Your task to perform on an android device: View the shopping cart on ebay.com. Search for bose soundsport free on ebay.com, select the first entry, add it to the cart, then select checkout. Image 0: 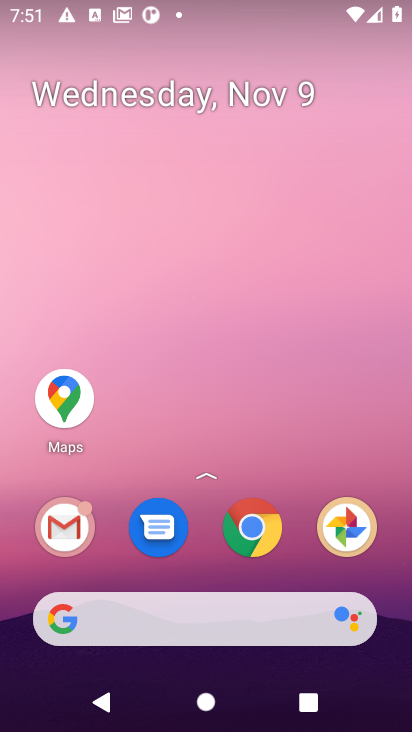
Step 0: click (248, 527)
Your task to perform on an android device: View the shopping cart on ebay.com. Search for bose soundsport free on ebay.com, select the first entry, add it to the cart, then select checkout. Image 1: 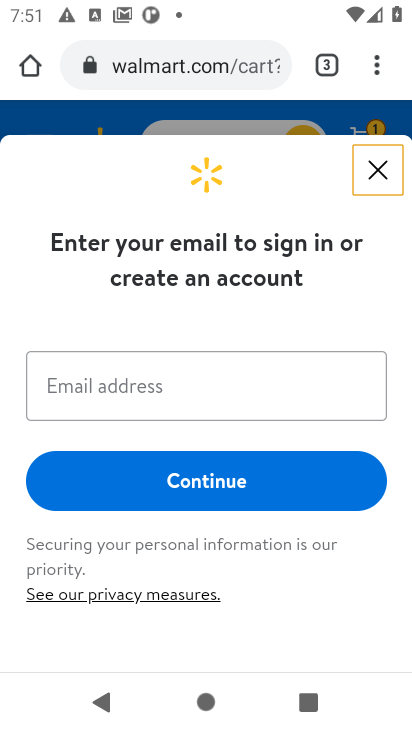
Step 1: click (177, 72)
Your task to perform on an android device: View the shopping cart on ebay.com. Search for bose soundsport free on ebay.com, select the first entry, add it to the cart, then select checkout. Image 2: 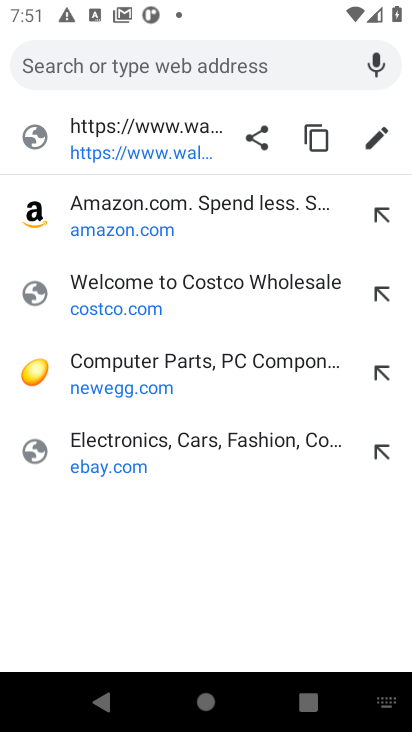
Step 2: click (95, 453)
Your task to perform on an android device: View the shopping cart on ebay.com. Search for bose soundsport free on ebay.com, select the first entry, add it to the cart, then select checkout. Image 3: 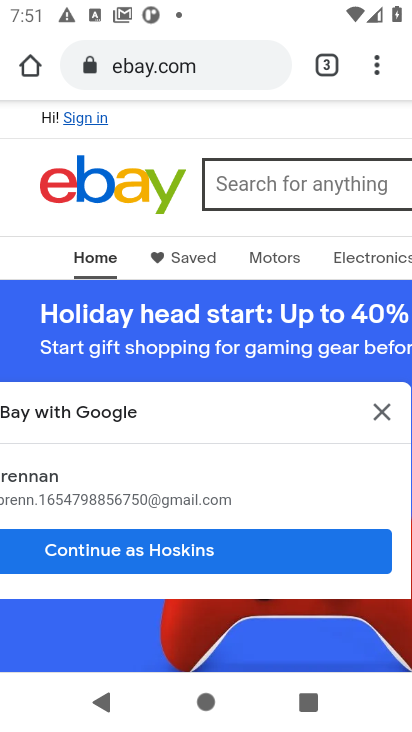
Step 3: drag from (304, 224) to (11, 163)
Your task to perform on an android device: View the shopping cart on ebay.com. Search for bose soundsport free on ebay.com, select the first entry, add it to the cart, then select checkout. Image 4: 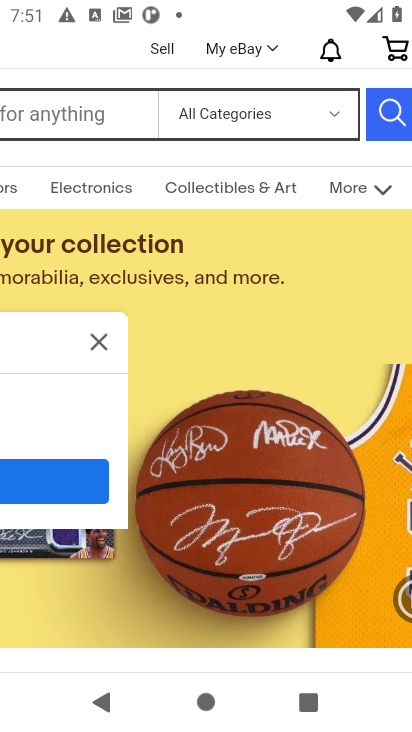
Step 4: click (393, 56)
Your task to perform on an android device: View the shopping cart on ebay.com. Search for bose soundsport free on ebay.com, select the first entry, add it to the cart, then select checkout. Image 5: 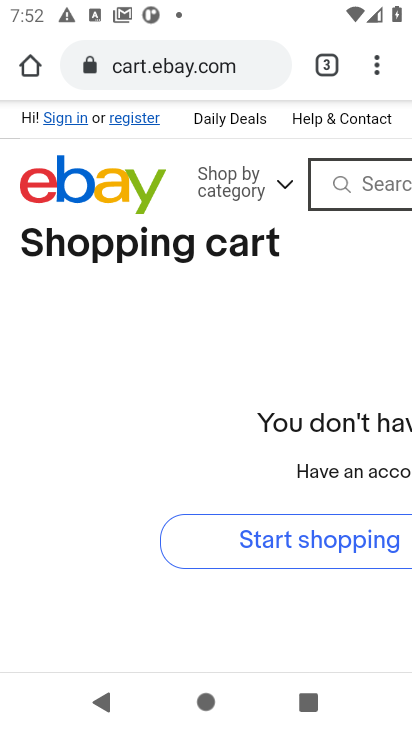
Step 5: click (359, 193)
Your task to perform on an android device: View the shopping cart on ebay.com. Search for bose soundsport free on ebay.com, select the first entry, add it to the cart, then select checkout. Image 6: 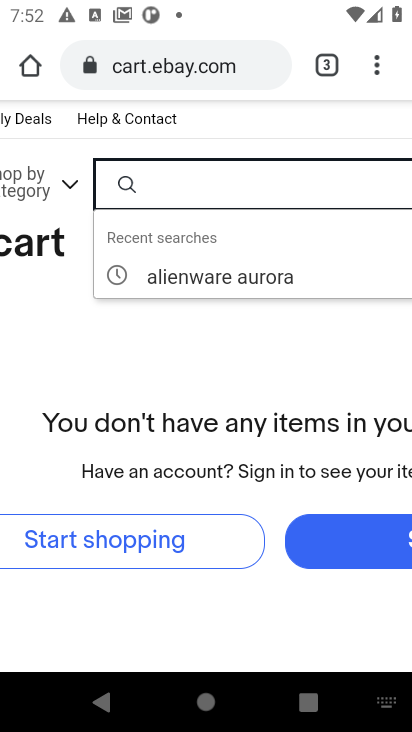
Step 6: type "bose soundsport free"
Your task to perform on an android device: View the shopping cart on ebay.com. Search for bose soundsport free on ebay.com, select the first entry, add it to the cart, then select checkout. Image 7: 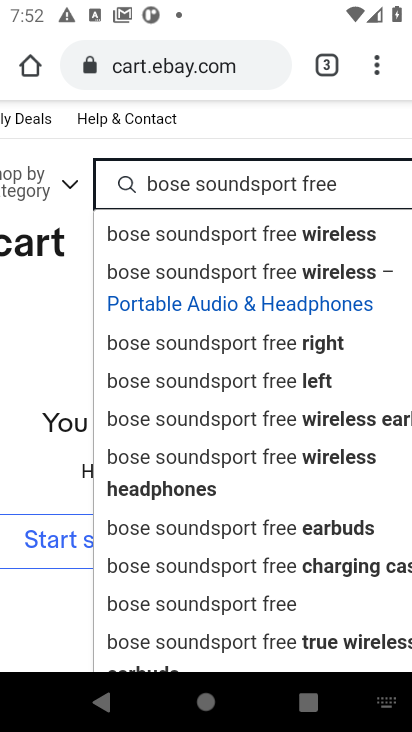
Step 7: click (256, 237)
Your task to perform on an android device: View the shopping cart on ebay.com. Search for bose soundsport free on ebay.com, select the first entry, add it to the cart, then select checkout. Image 8: 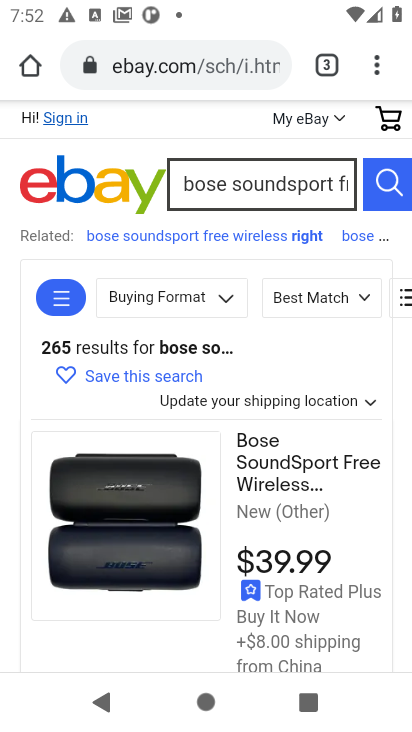
Step 8: drag from (163, 587) to (170, 456)
Your task to perform on an android device: View the shopping cart on ebay.com. Search for bose soundsport free on ebay.com, select the first entry, add it to the cart, then select checkout. Image 9: 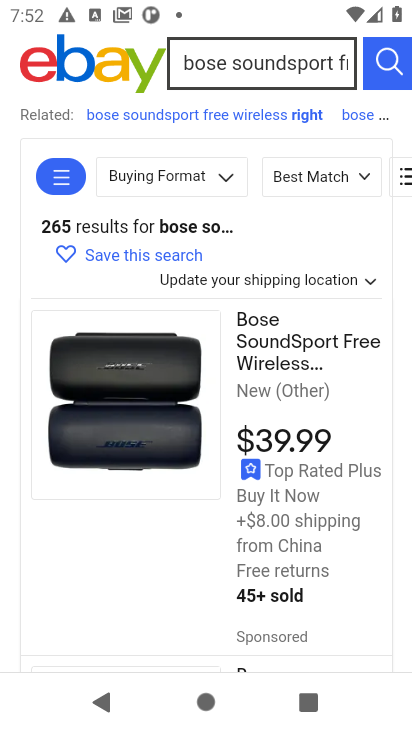
Step 9: click (170, 456)
Your task to perform on an android device: View the shopping cart on ebay.com. Search for bose soundsport free on ebay.com, select the first entry, add it to the cart, then select checkout. Image 10: 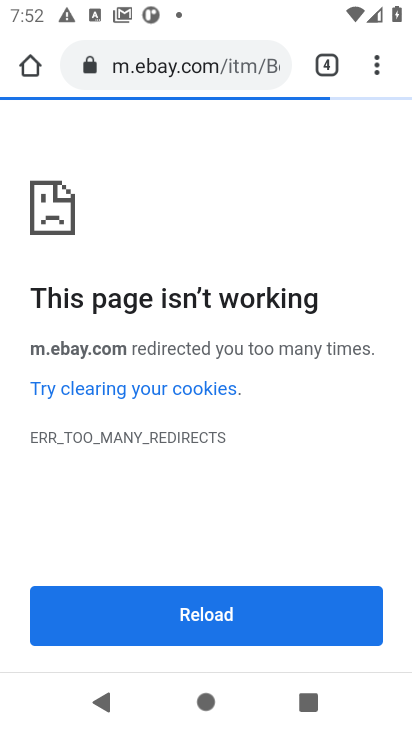
Step 10: task complete